Your task to perform on an android device: turn on bluetooth scan Image 0: 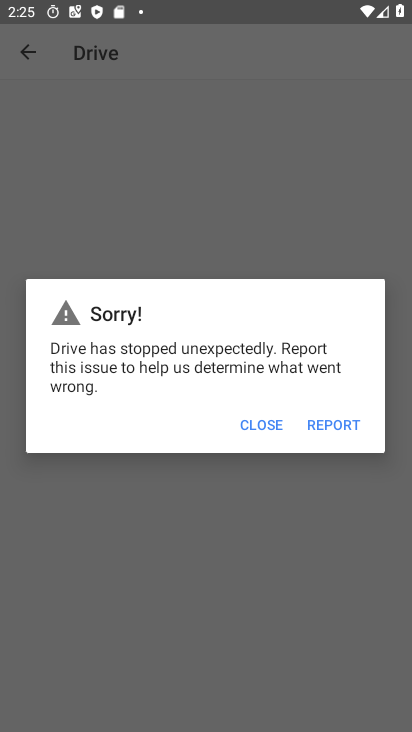
Step 0: press home button
Your task to perform on an android device: turn on bluetooth scan Image 1: 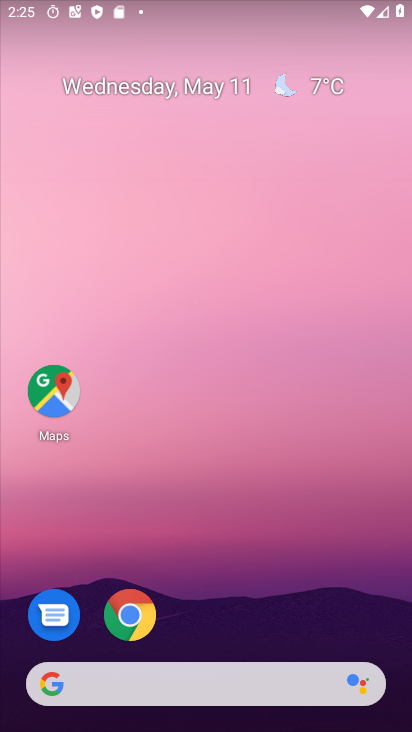
Step 1: click (231, 647)
Your task to perform on an android device: turn on bluetooth scan Image 2: 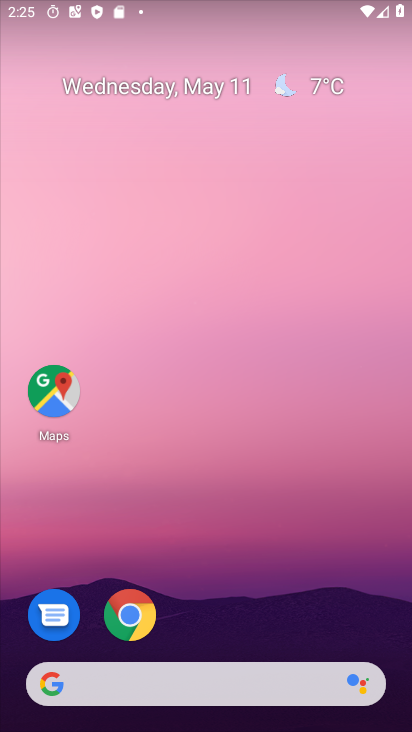
Step 2: drag from (228, 677) to (246, 290)
Your task to perform on an android device: turn on bluetooth scan Image 3: 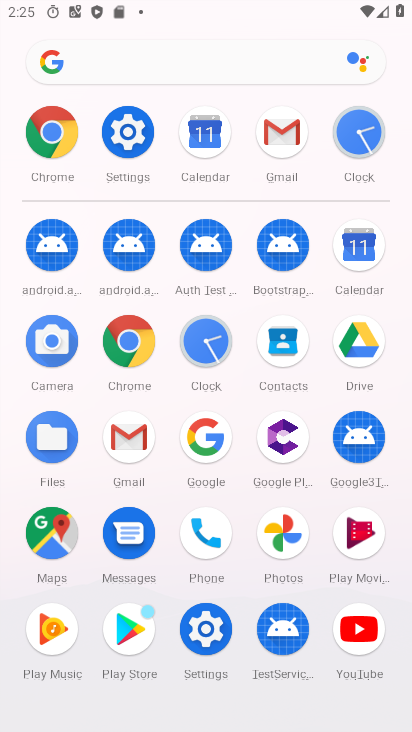
Step 3: click (125, 137)
Your task to perform on an android device: turn on bluetooth scan Image 4: 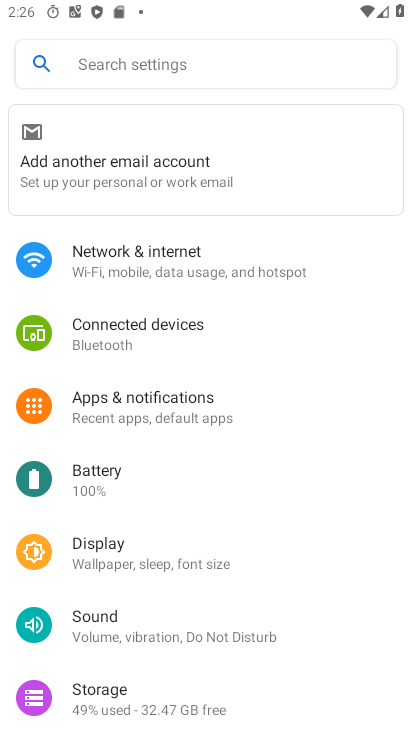
Step 4: drag from (179, 426) to (205, 61)
Your task to perform on an android device: turn on bluetooth scan Image 5: 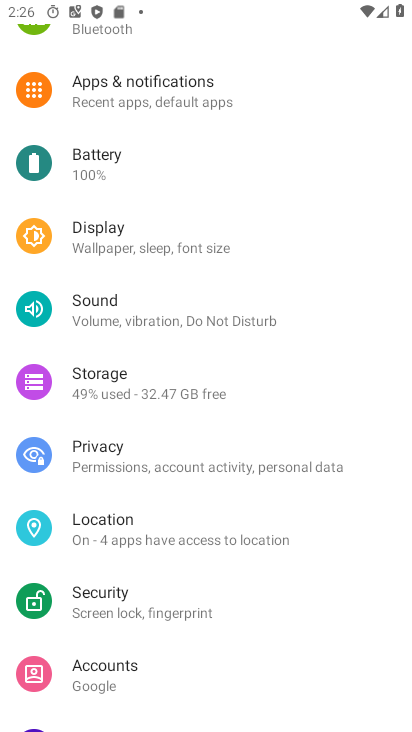
Step 5: click (127, 532)
Your task to perform on an android device: turn on bluetooth scan Image 6: 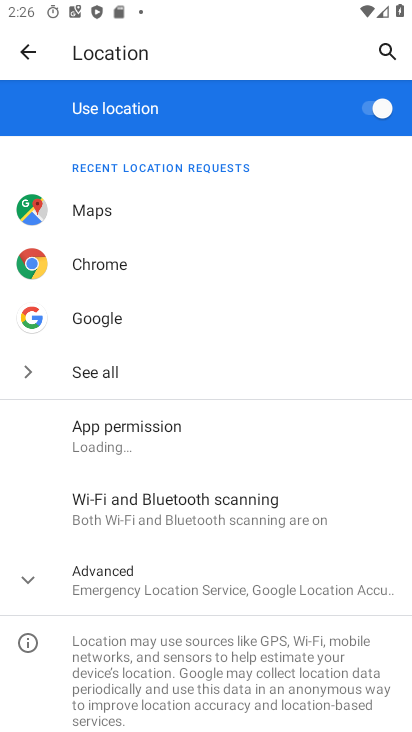
Step 6: click (230, 519)
Your task to perform on an android device: turn on bluetooth scan Image 7: 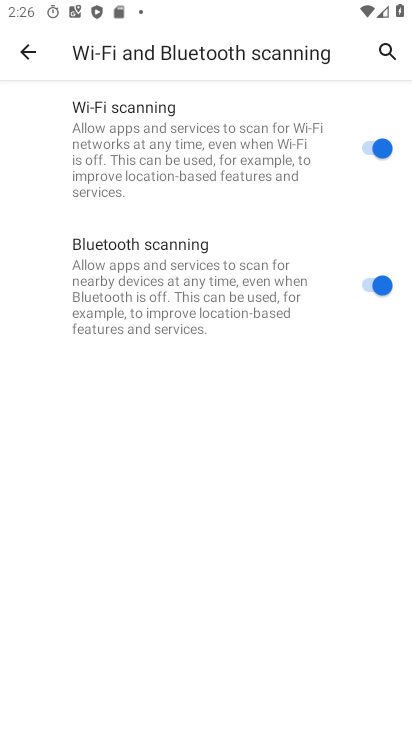
Step 7: task complete